Your task to perform on an android device: toggle location history Image 0: 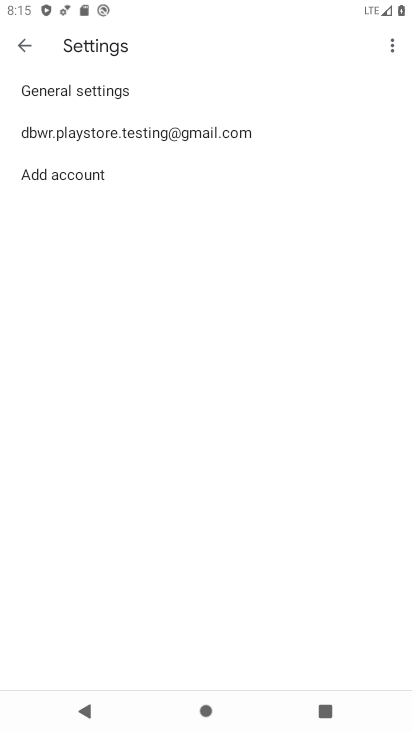
Step 0: click (33, 56)
Your task to perform on an android device: toggle location history Image 1: 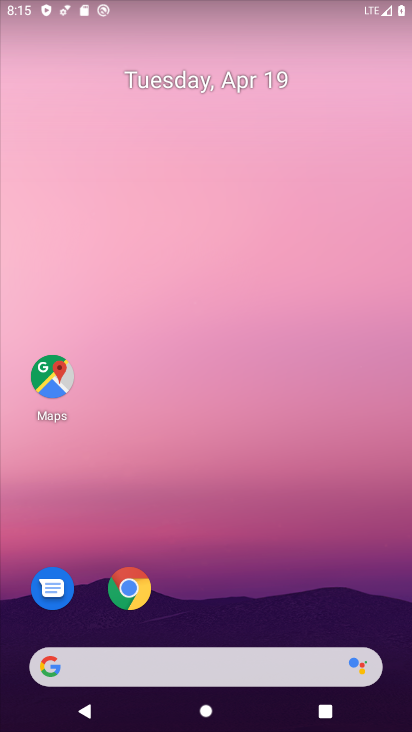
Step 1: drag from (294, 492) to (356, 62)
Your task to perform on an android device: toggle location history Image 2: 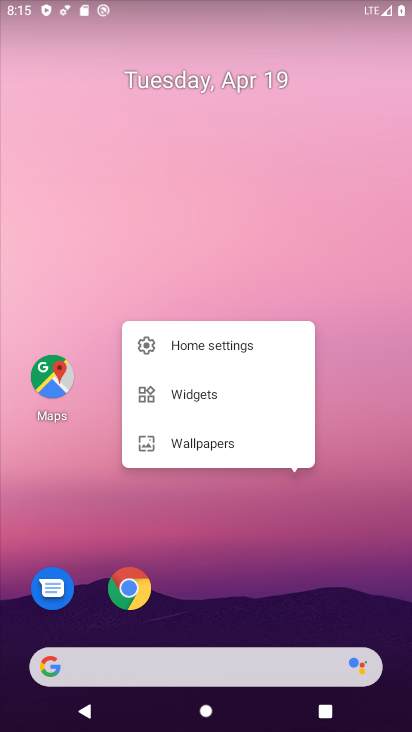
Step 2: drag from (155, 500) to (178, 55)
Your task to perform on an android device: toggle location history Image 3: 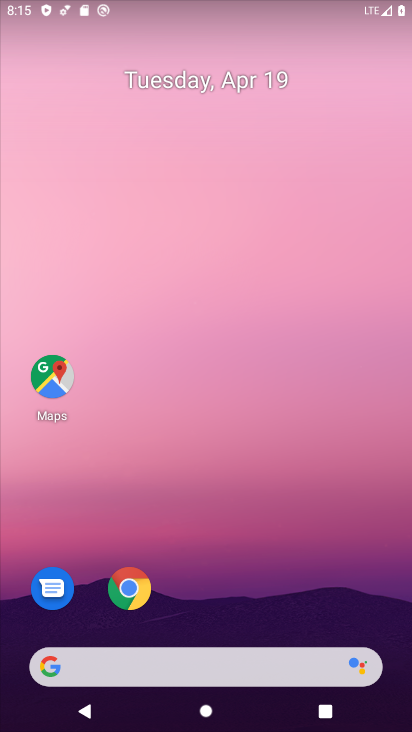
Step 3: drag from (226, 552) to (164, 32)
Your task to perform on an android device: toggle location history Image 4: 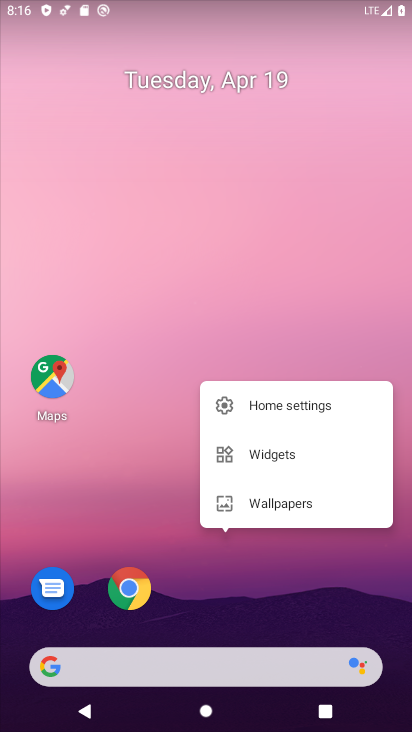
Step 4: drag from (111, 507) to (141, 179)
Your task to perform on an android device: toggle location history Image 5: 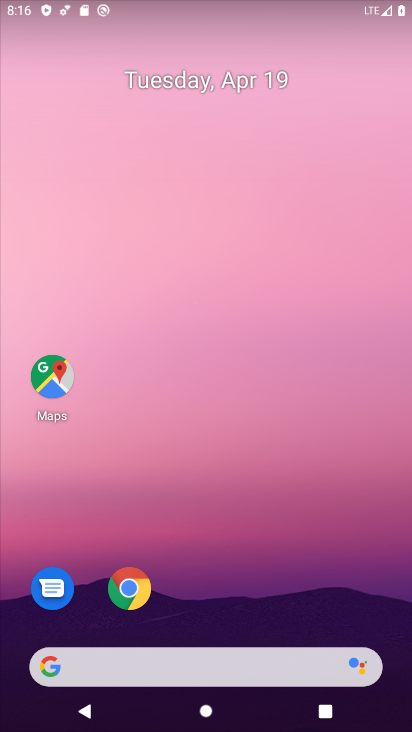
Step 5: drag from (244, 572) to (282, 0)
Your task to perform on an android device: toggle location history Image 6: 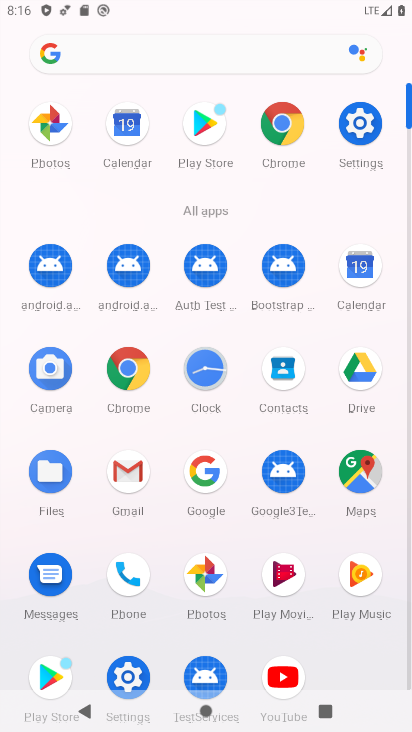
Step 6: click (368, 144)
Your task to perform on an android device: toggle location history Image 7: 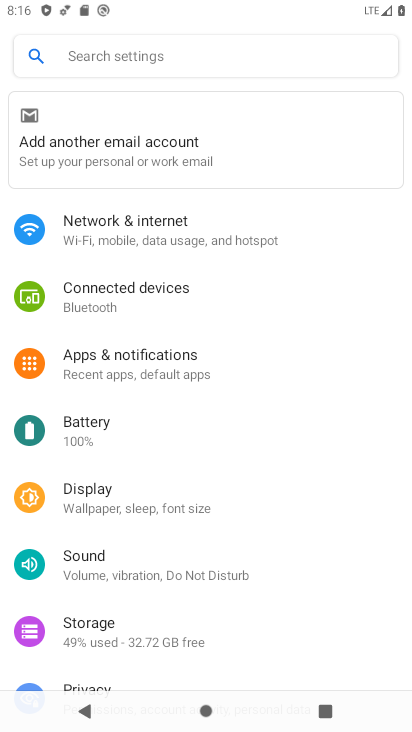
Step 7: drag from (210, 544) to (265, 302)
Your task to perform on an android device: toggle location history Image 8: 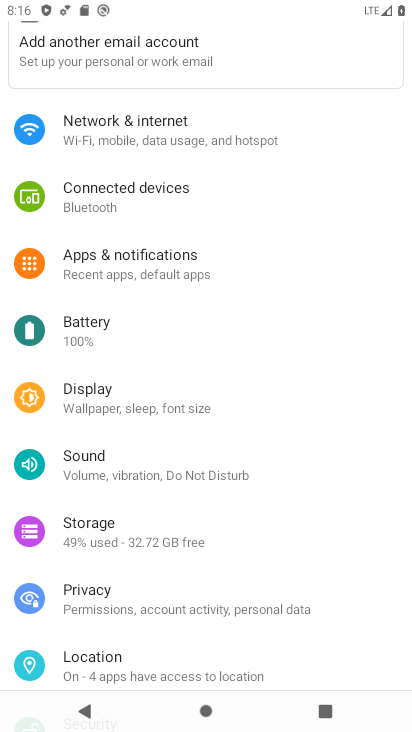
Step 8: click (119, 648)
Your task to perform on an android device: toggle location history Image 9: 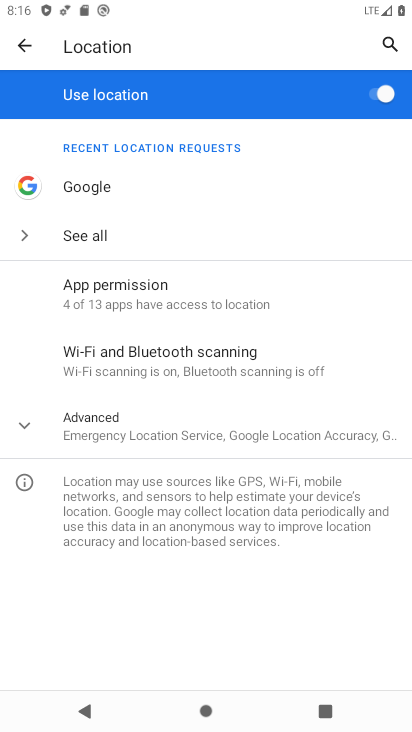
Step 9: click (220, 458)
Your task to perform on an android device: toggle location history Image 10: 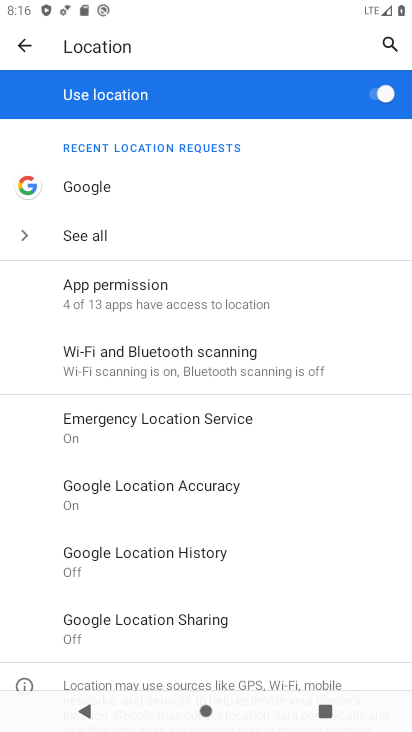
Step 10: click (273, 541)
Your task to perform on an android device: toggle location history Image 11: 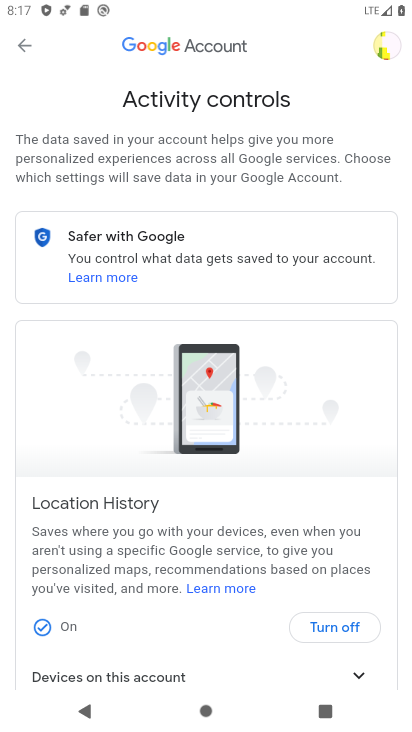
Step 11: click (332, 619)
Your task to perform on an android device: toggle location history Image 12: 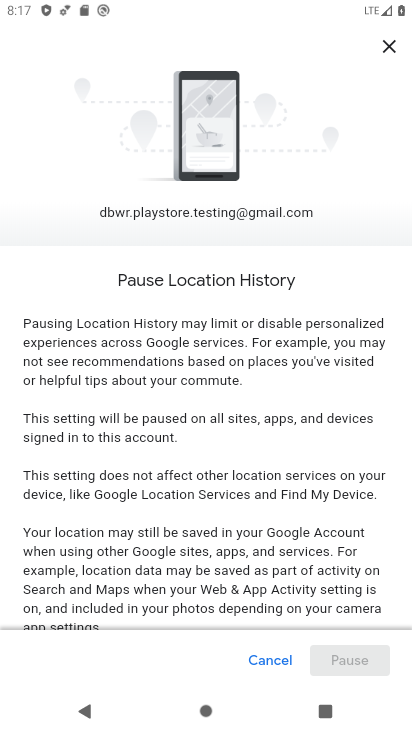
Step 12: drag from (332, 614) to (336, 521)
Your task to perform on an android device: toggle location history Image 13: 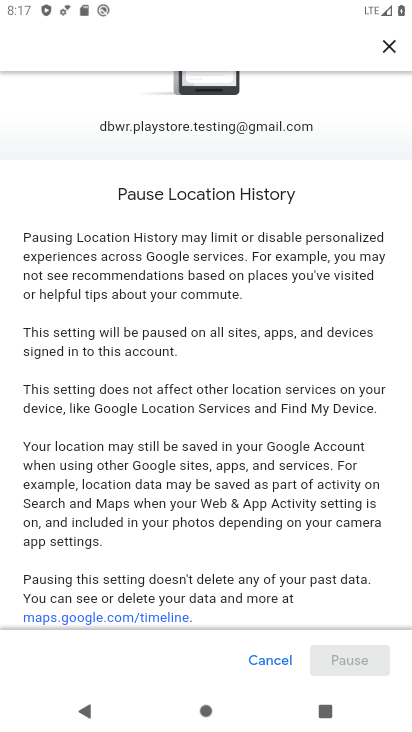
Step 13: drag from (344, 606) to (333, 440)
Your task to perform on an android device: toggle location history Image 14: 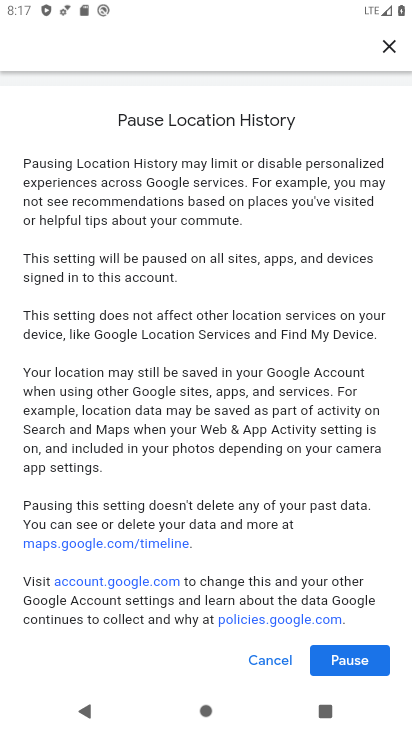
Step 14: click (338, 664)
Your task to perform on an android device: toggle location history Image 15: 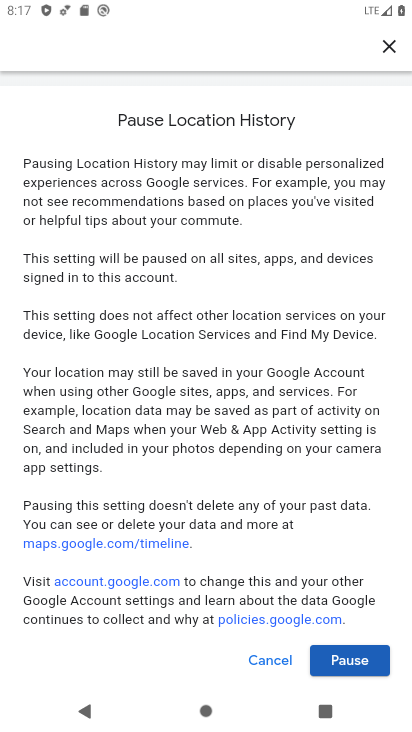
Step 15: click (353, 655)
Your task to perform on an android device: toggle location history Image 16: 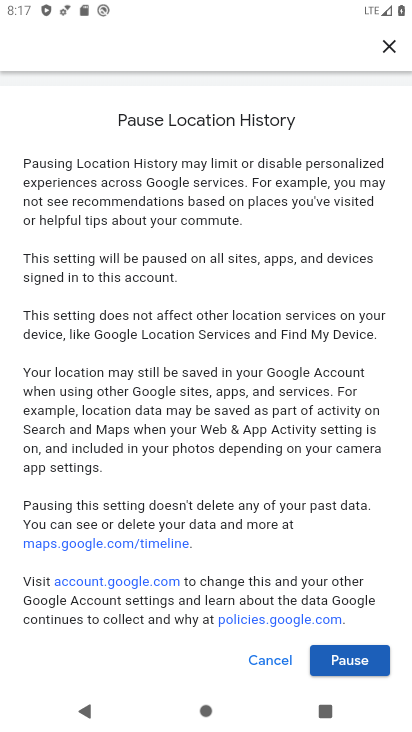
Step 16: click (353, 655)
Your task to perform on an android device: toggle location history Image 17: 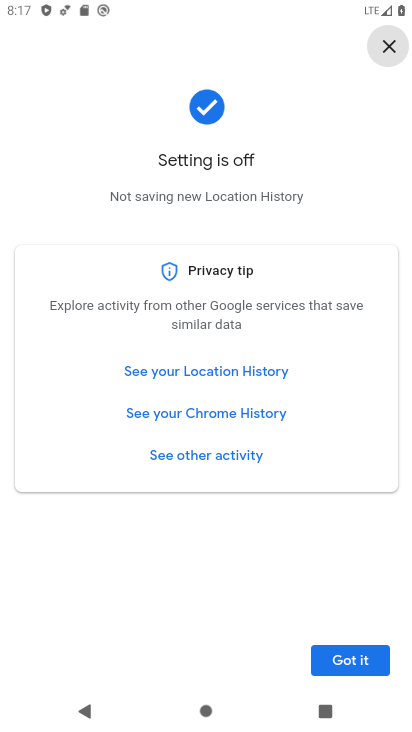
Step 17: click (380, 659)
Your task to perform on an android device: toggle location history Image 18: 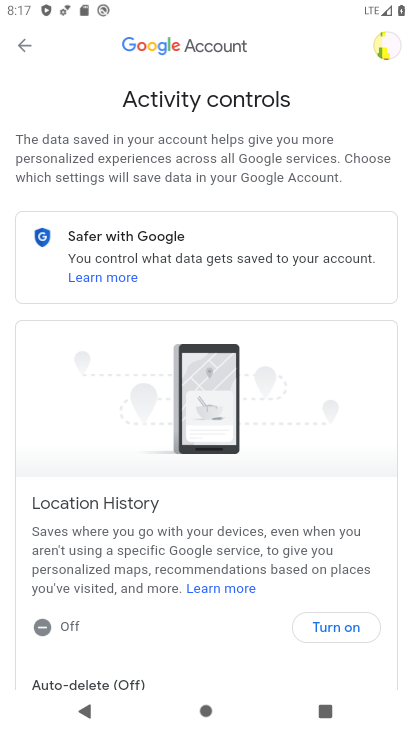
Step 18: task complete